Your task to perform on an android device: remove spam from my inbox in the gmail app Image 0: 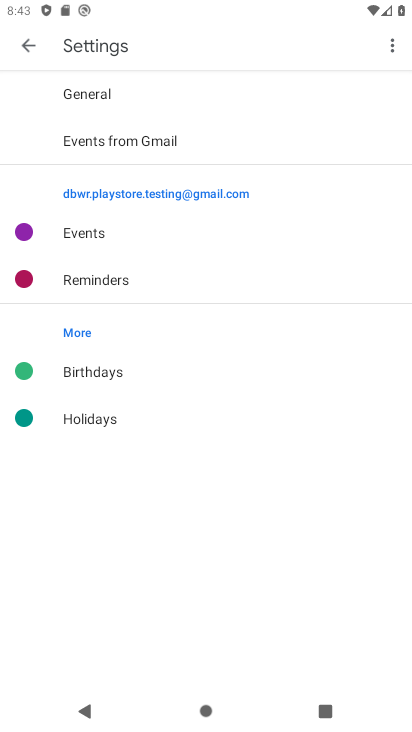
Step 0: press home button
Your task to perform on an android device: remove spam from my inbox in the gmail app Image 1: 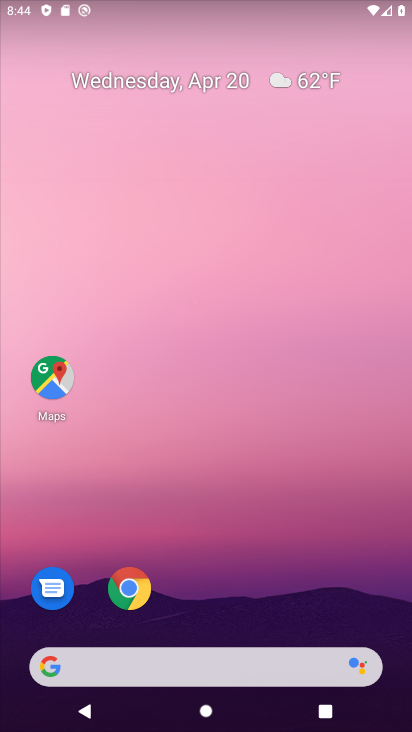
Step 1: drag from (217, 618) to (211, 41)
Your task to perform on an android device: remove spam from my inbox in the gmail app Image 2: 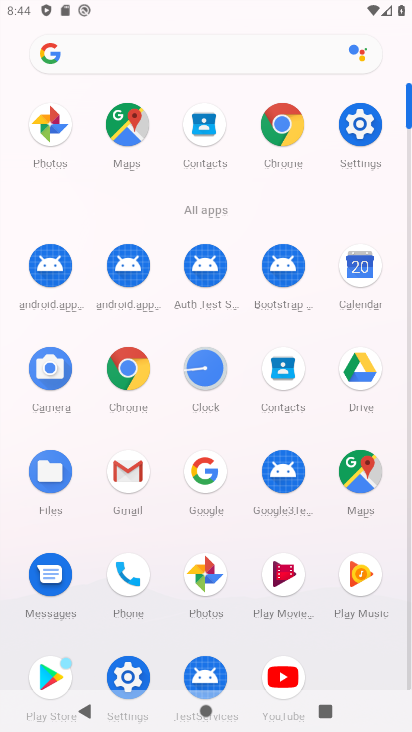
Step 2: click (126, 463)
Your task to perform on an android device: remove spam from my inbox in the gmail app Image 3: 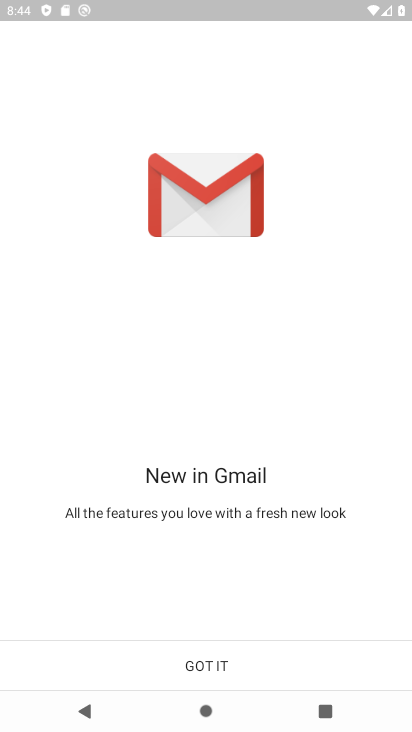
Step 3: click (214, 673)
Your task to perform on an android device: remove spam from my inbox in the gmail app Image 4: 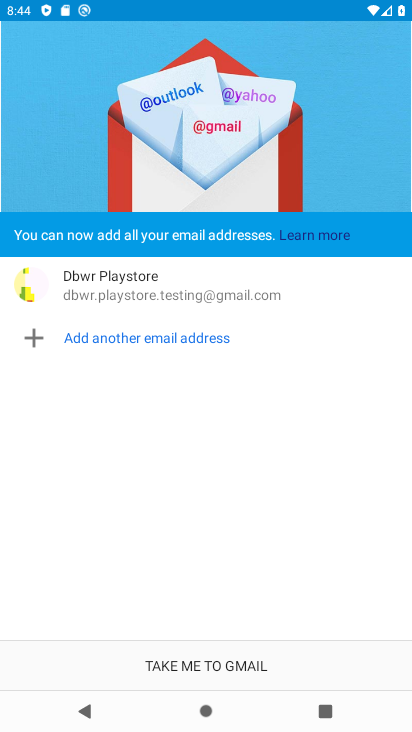
Step 4: click (201, 673)
Your task to perform on an android device: remove spam from my inbox in the gmail app Image 5: 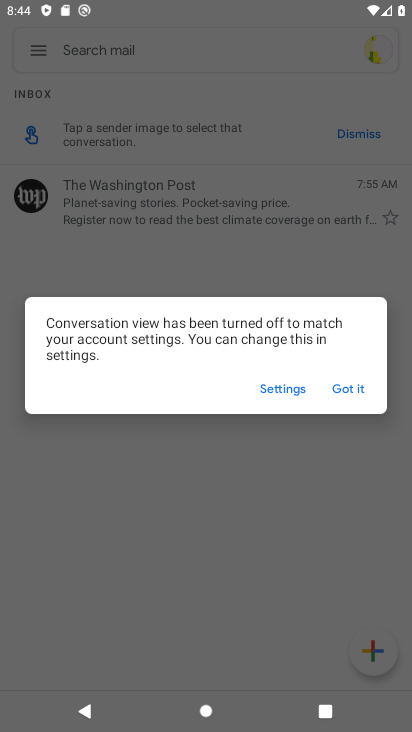
Step 5: click (350, 381)
Your task to perform on an android device: remove spam from my inbox in the gmail app Image 6: 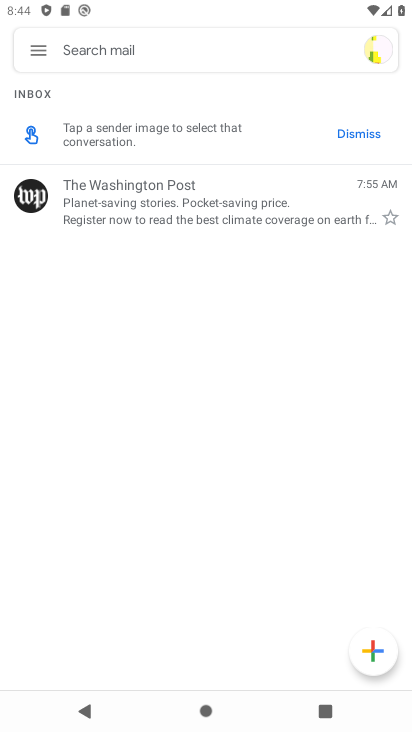
Step 6: click (30, 43)
Your task to perform on an android device: remove spam from my inbox in the gmail app Image 7: 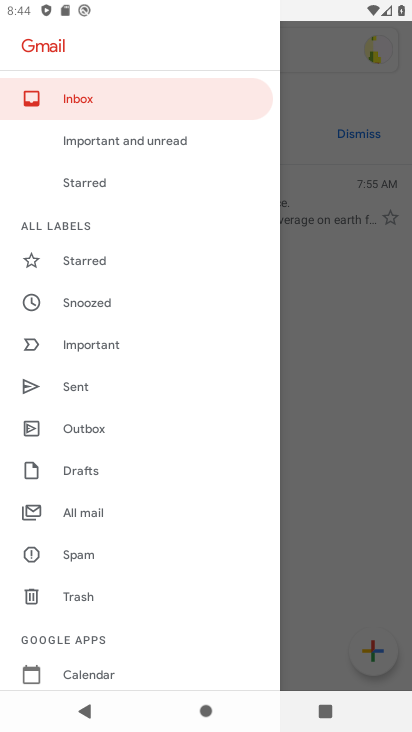
Step 7: click (95, 550)
Your task to perform on an android device: remove spam from my inbox in the gmail app Image 8: 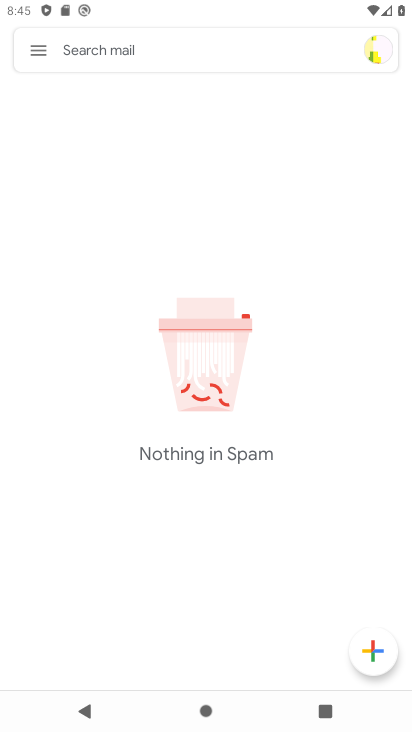
Step 8: task complete